Your task to perform on an android device: Open Android settings Image 0: 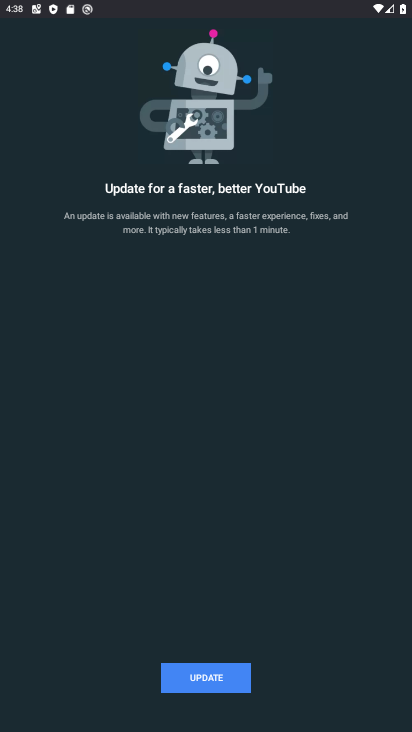
Step 0: press home button
Your task to perform on an android device: Open Android settings Image 1: 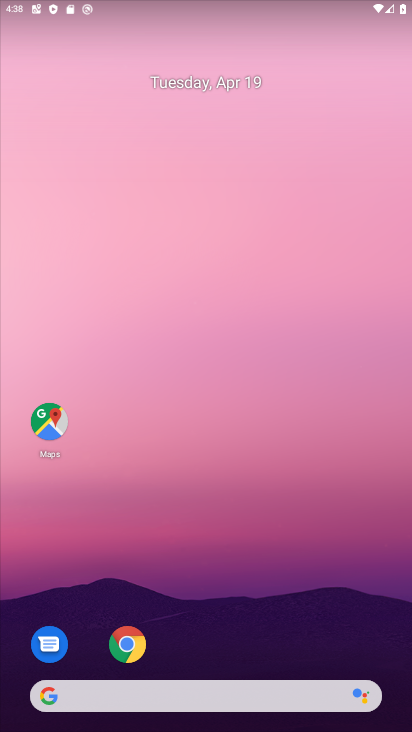
Step 1: drag from (311, 616) to (304, 293)
Your task to perform on an android device: Open Android settings Image 2: 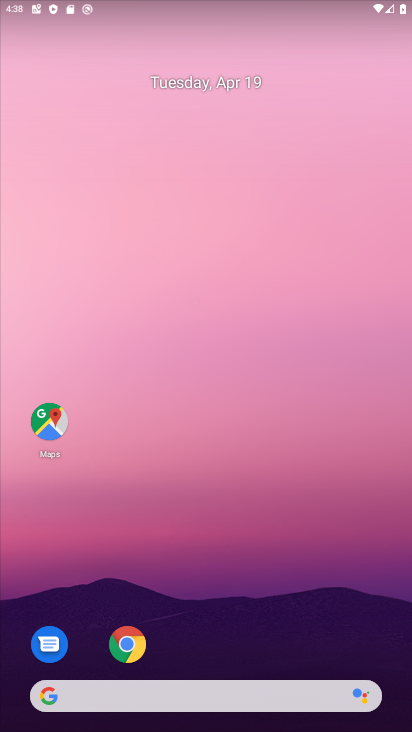
Step 2: drag from (305, 576) to (291, 60)
Your task to perform on an android device: Open Android settings Image 3: 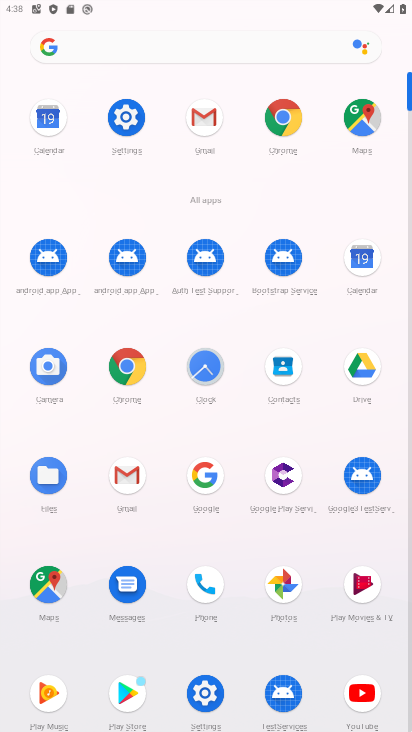
Step 3: click (207, 576)
Your task to perform on an android device: Open Android settings Image 4: 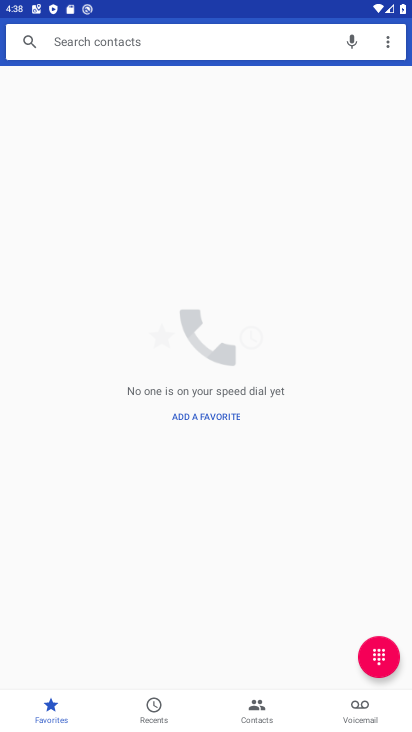
Step 4: drag from (382, 40) to (356, 87)
Your task to perform on an android device: Open Android settings Image 5: 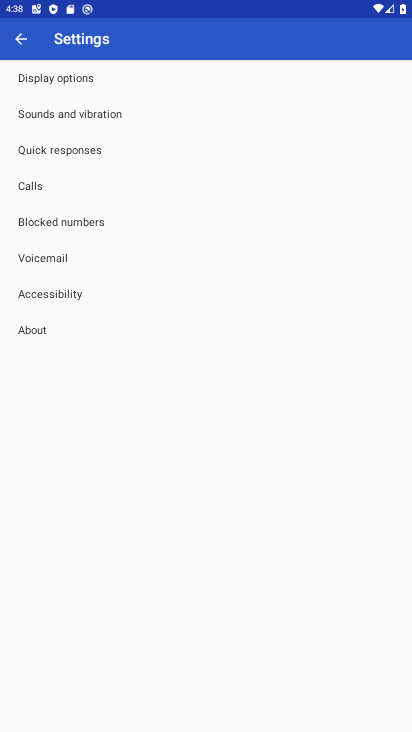
Step 5: click (59, 324)
Your task to perform on an android device: Open Android settings Image 6: 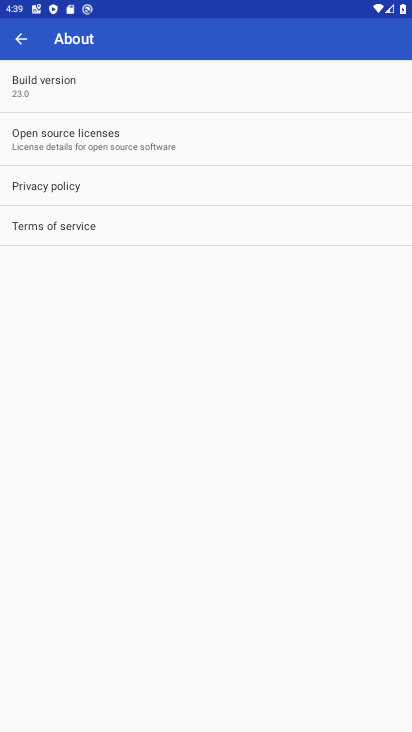
Step 6: task complete